Your task to perform on an android device: find which apps use the phone's location Image 0: 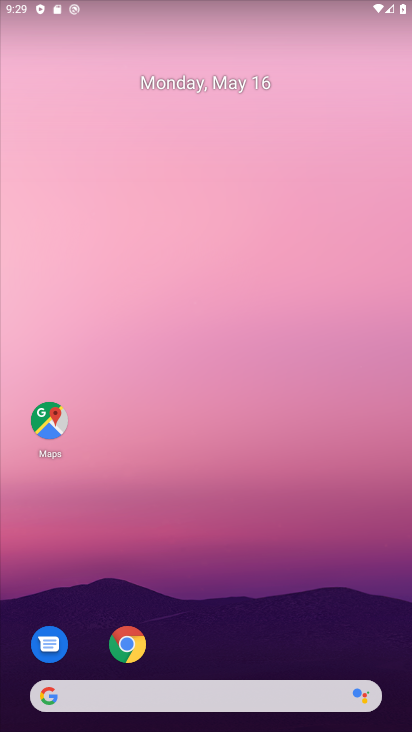
Step 0: drag from (13, 309) to (398, 247)
Your task to perform on an android device: find which apps use the phone's location Image 1: 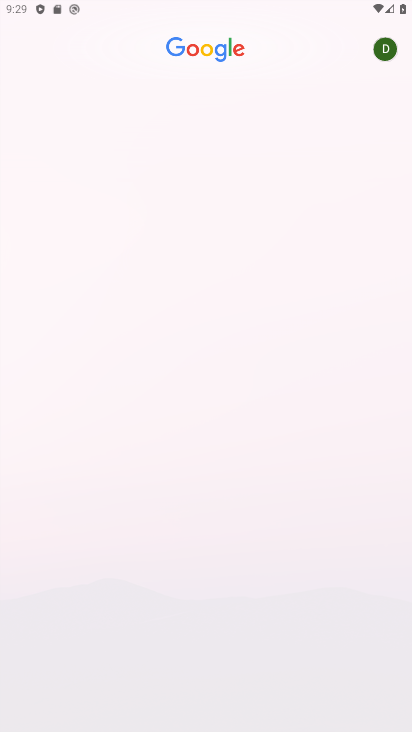
Step 1: press home button
Your task to perform on an android device: find which apps use the phone's location Image 2: 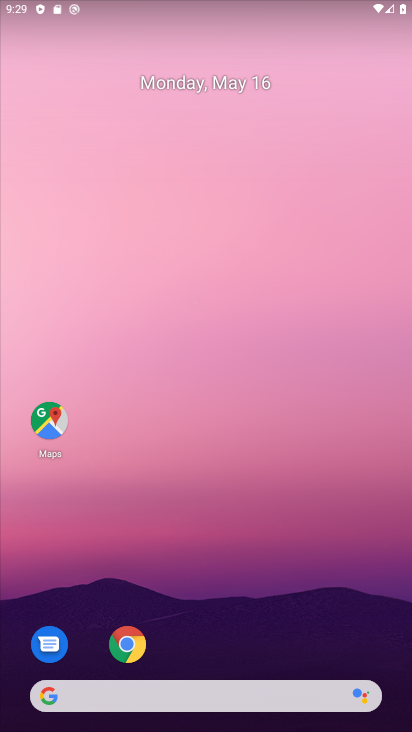
Step 2: drag from (198, 699) to (232, 197)
Your task to perform on an android device: find which apps use the phone's location Image 3: 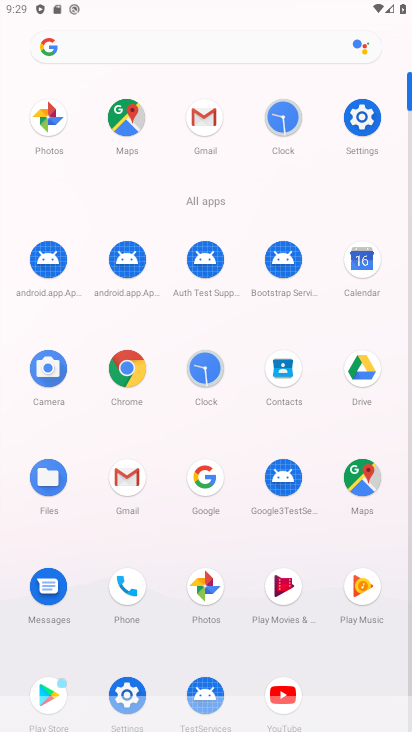
Step 3: click (361, 123)
Your task to perform on an android device: find which apps use the phone's location Image 4: 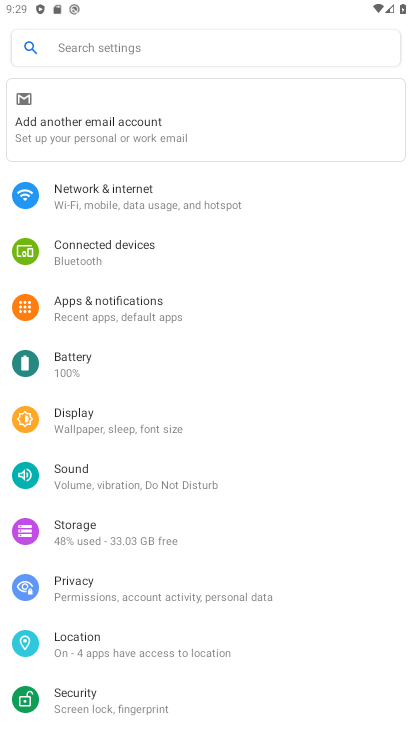
Step 4: click (89, 646)
Your task to perform on an android device: find which apps use the phone's location Image 5: 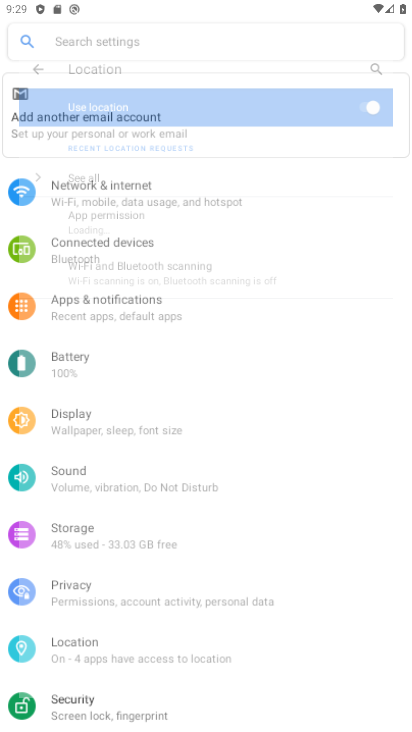
Step 5: click (89, 646)
Your task to perform on an android device: find which apps use the phone's location Image 6: 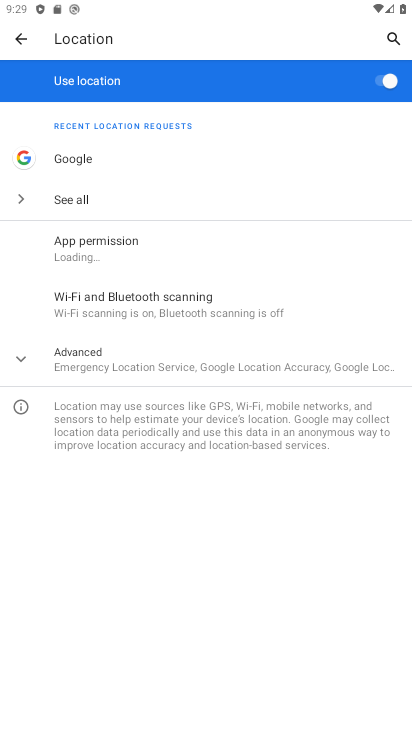
Step 6: click (87, 256)
Your task to perform on an android device: find which apps use the phone's location Image 7: 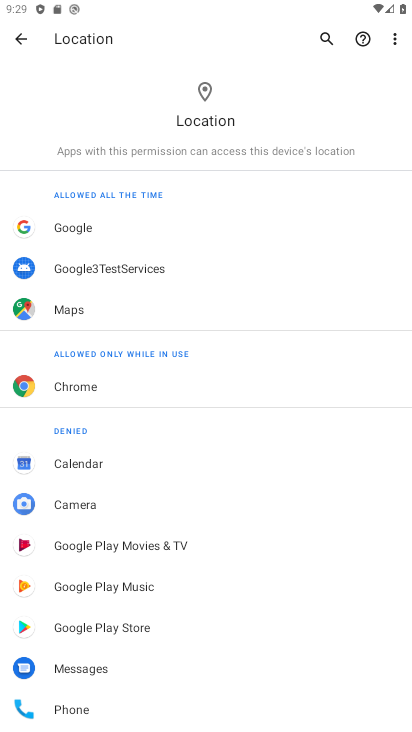
Step 7: task complete